Your task to perform on an android device: open app "Google Play Games" Image 0: 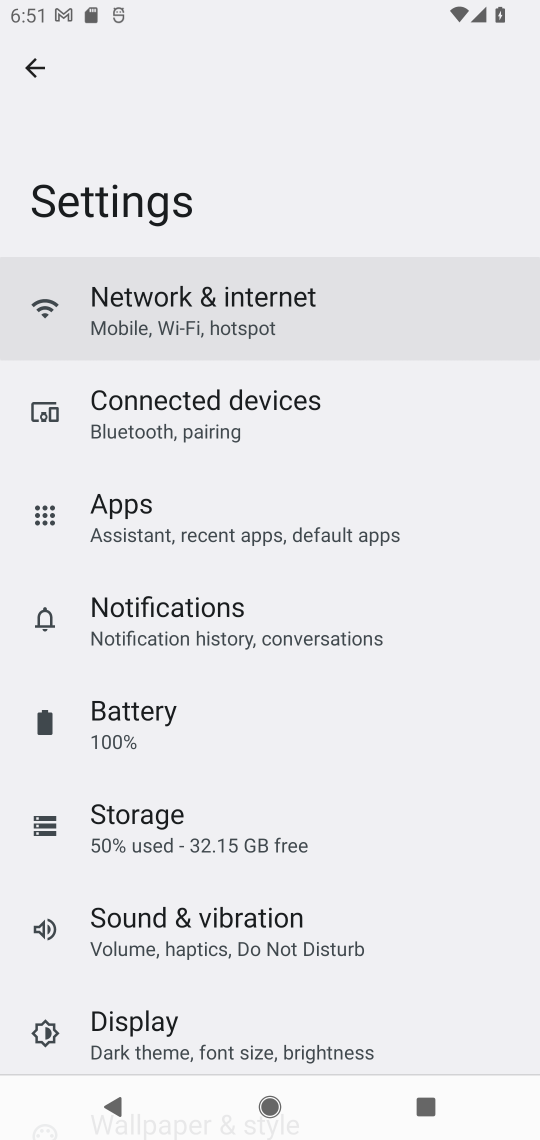
Step 0: press home button
Your task to perform on an android device: open app "Google Play Games" Image 1: 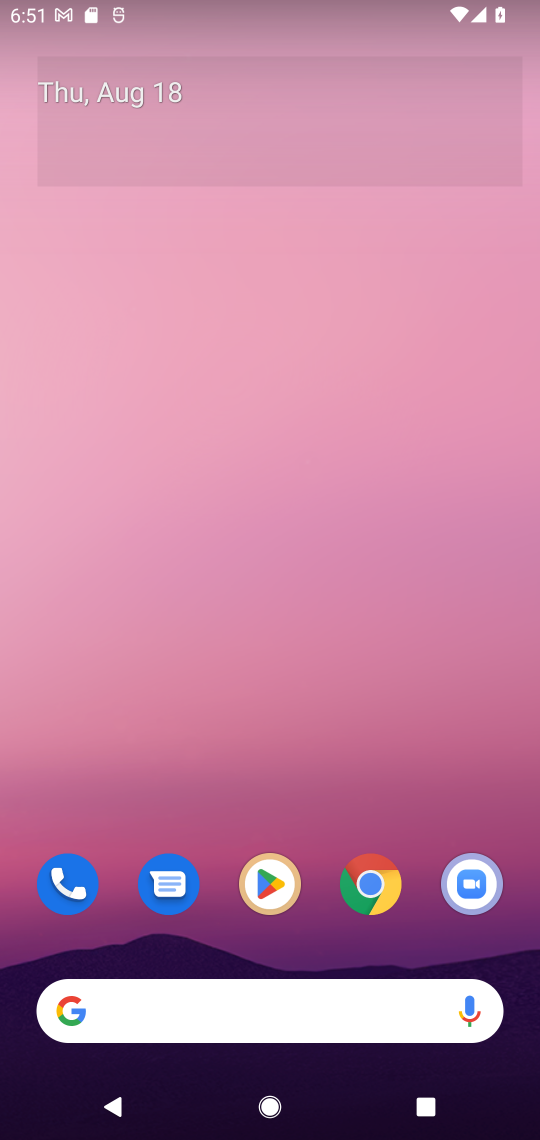
Step 1: drag from (337, 1015) to (390, 172)
Your task to perform on an android device: open app "Google Play Games" Image 2: 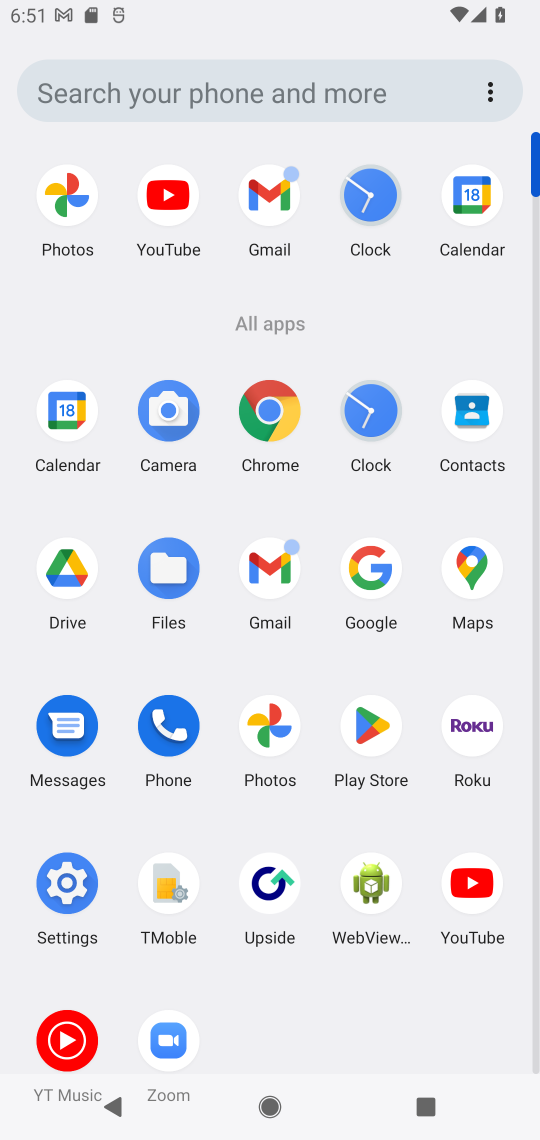
Step 2: click (374, 728)
Your task to perform on an android device: open app "Google Play Games" Image 3: 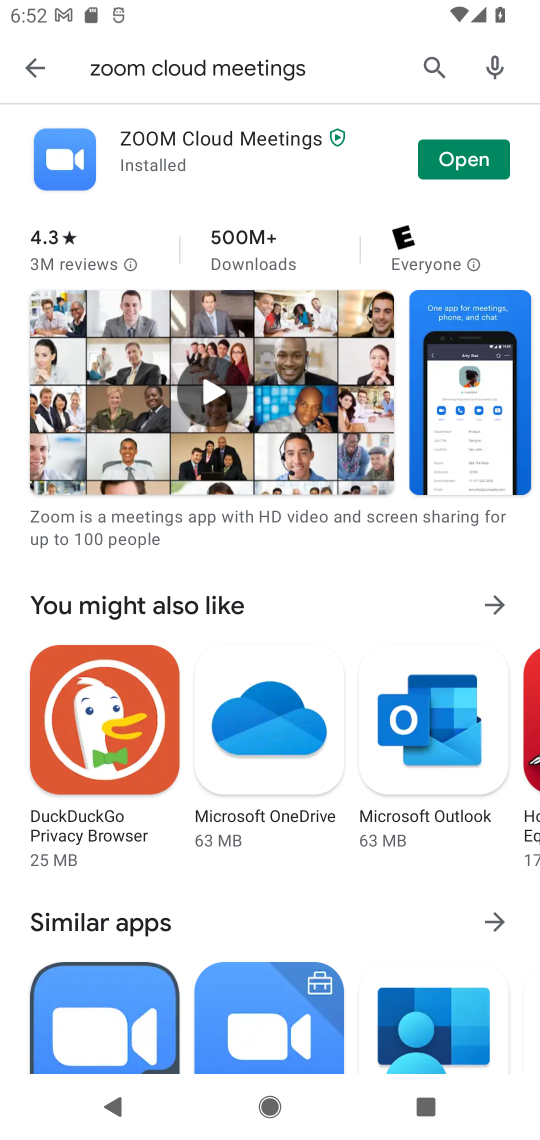
Step 3: press back button
Your task to perform on an android device: open app "Google Play Games" Image 4: 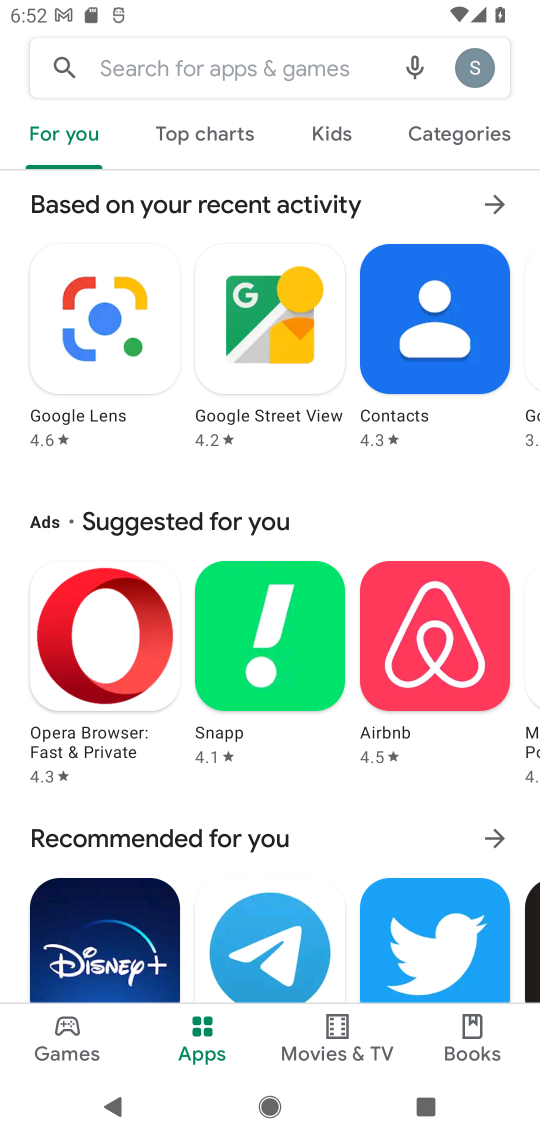
Step 4: click (288, 69)
Your task to perform on an android device: open app "Google Play Games" Image 5: 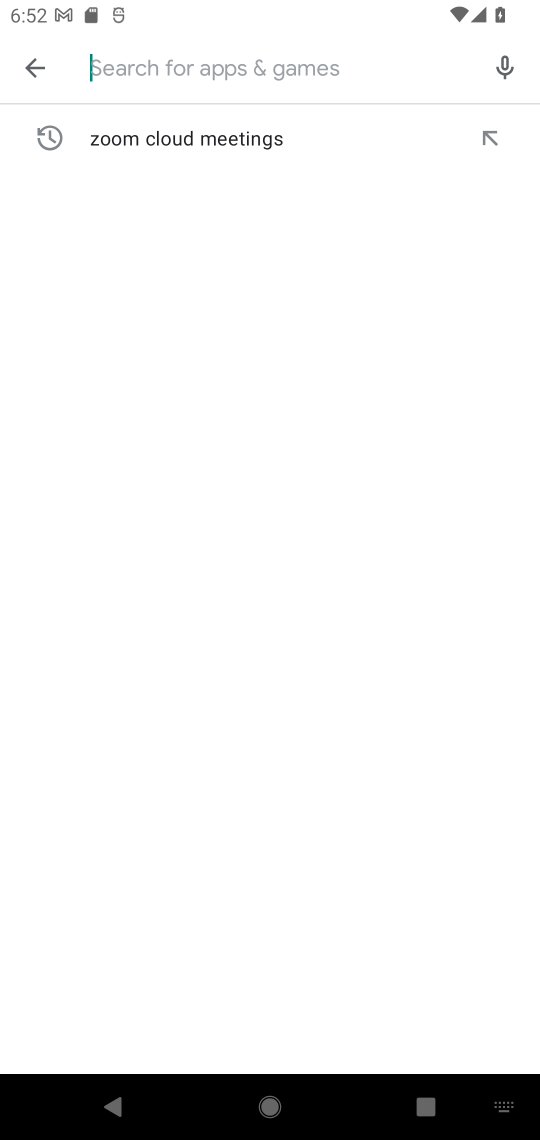
Step 5: type "Google Play Games"
Your task to perform on an android device: open app "Google Play Games" Image 6: 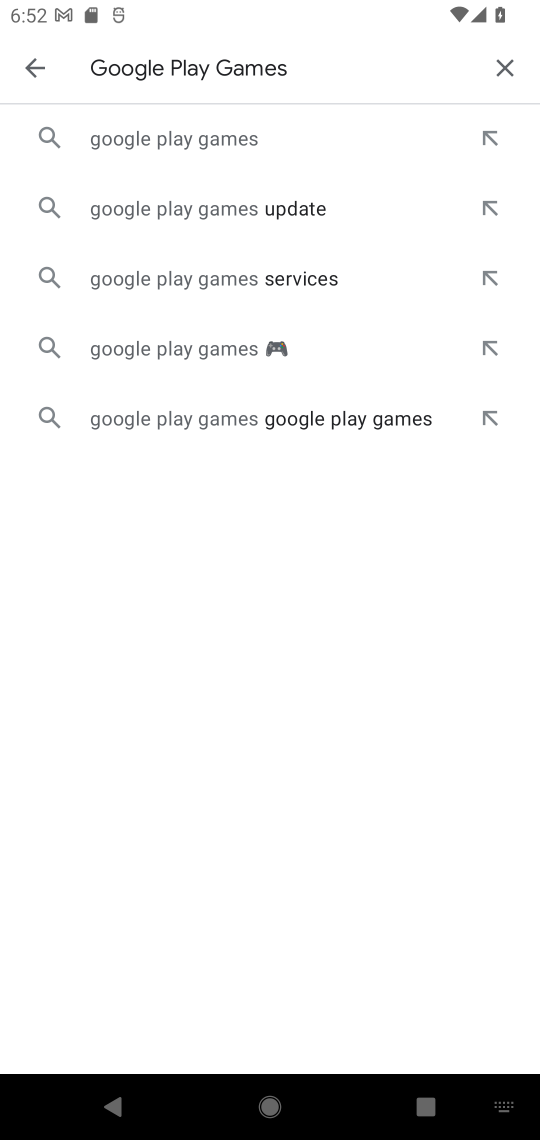
Step 6: click (122, 131)
Your task to perform on an android device: open app "Google Play Games" Image 7: 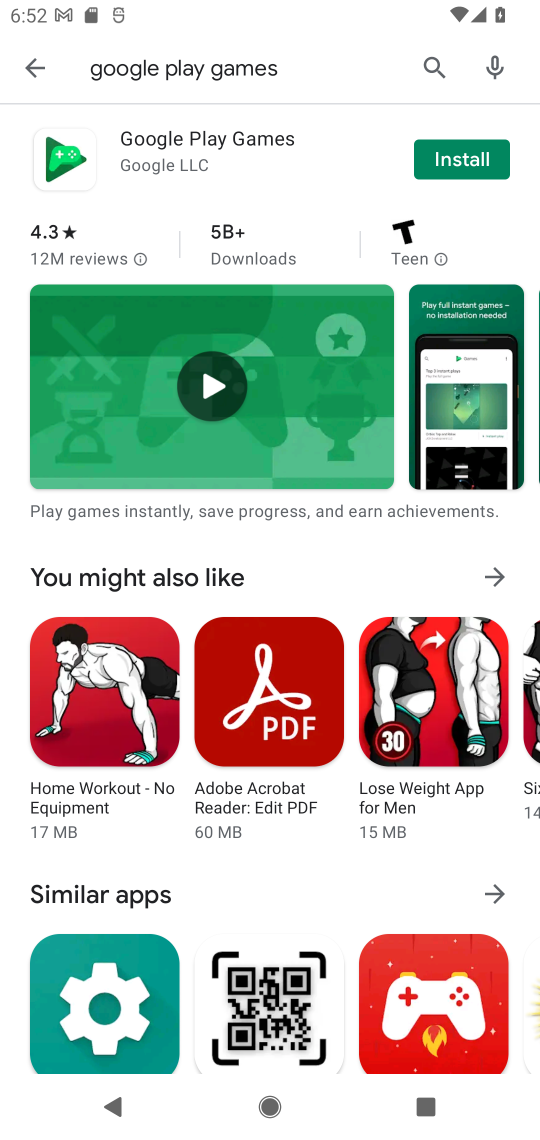
Step 7: task complete